Your task to perform on an android device: turn off javascript in the chrome app Image 0: 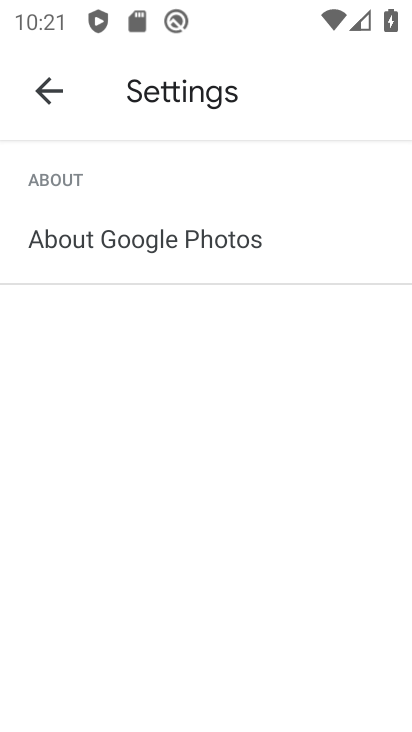
Step 0: press back button
Your task to perform on an android device: turn off javascript in the chrome app Image 1: 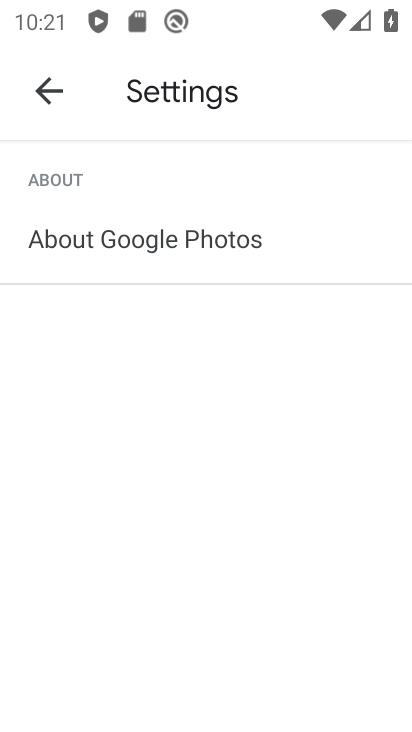
Step 1: press back button
Your task to perform on an android device: turn off javascript in the chrome app Image 2: 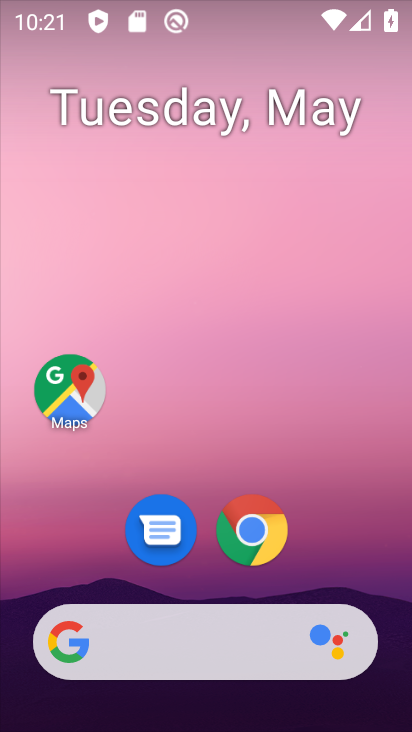
Step 2: drag from (362, 687) to (151, 144)
Your task to perform on an android device: turn off javascript in the chrome app Image 3: 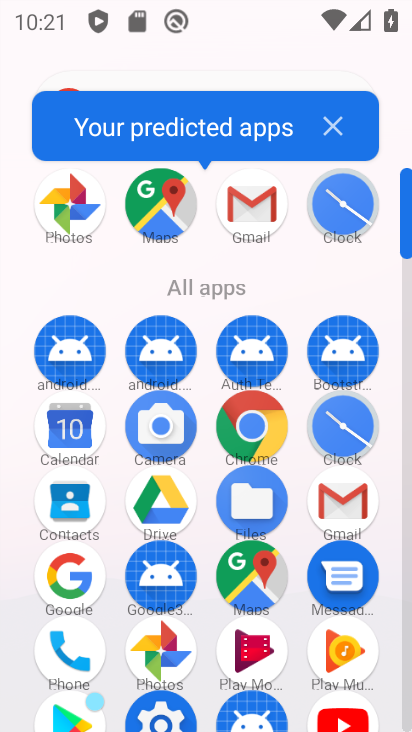
Step 3: click (245, 418)
Your task to perform on an android device: turn off javascript in the chrome app Image 4: 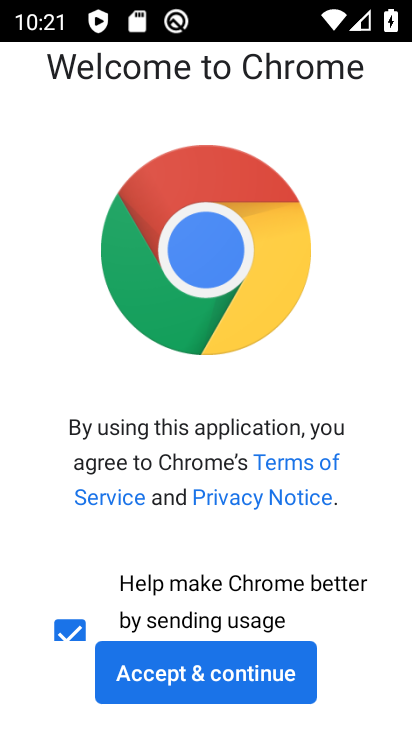
Step 4: click (209, 660)
Your task to perform on an android device: turn off javascript in the chrome app Image 5: 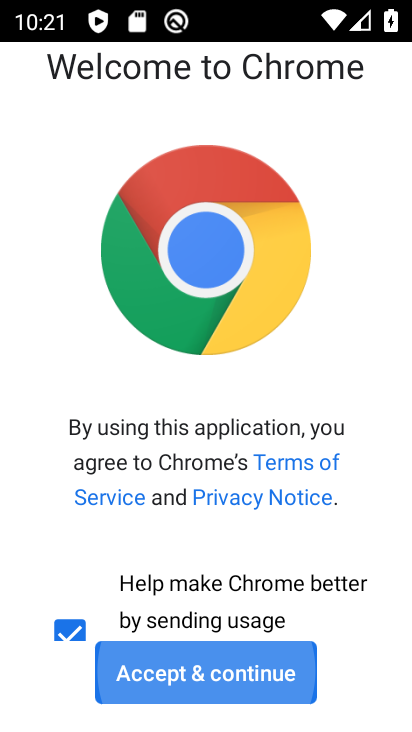
Step 5: click (209, 666)
Your task to perform on an android device: turn off javascript in the chrome app Image 6: 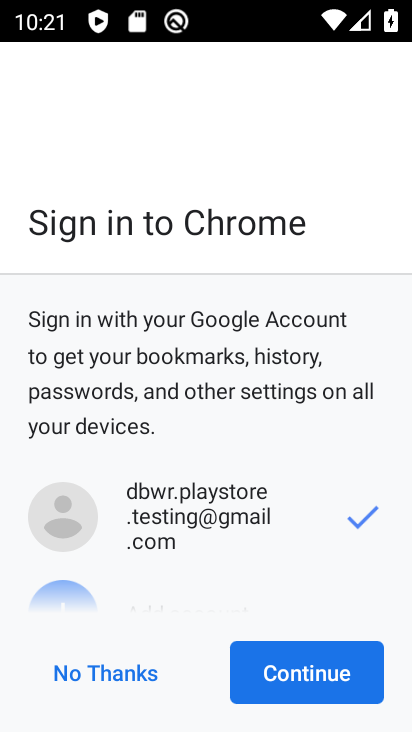
Step 6: click (304, 673)
Your task to perform on an android device: turn off javascript in the chrome app Image 7: 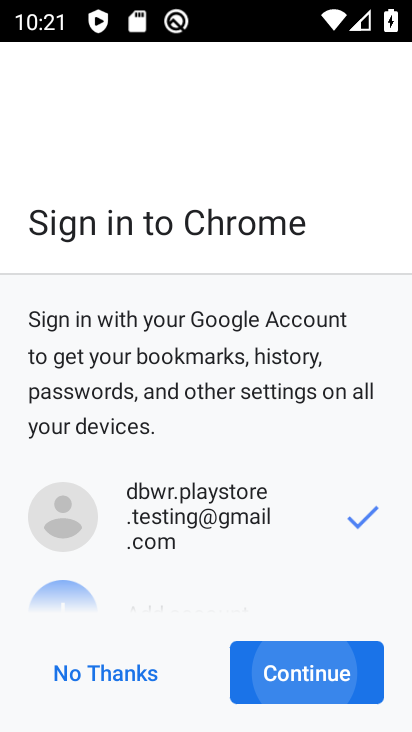
Step 7: click (296, 680)
Your task to perform on an android device: turn off javascript in the chrome app Image 8: 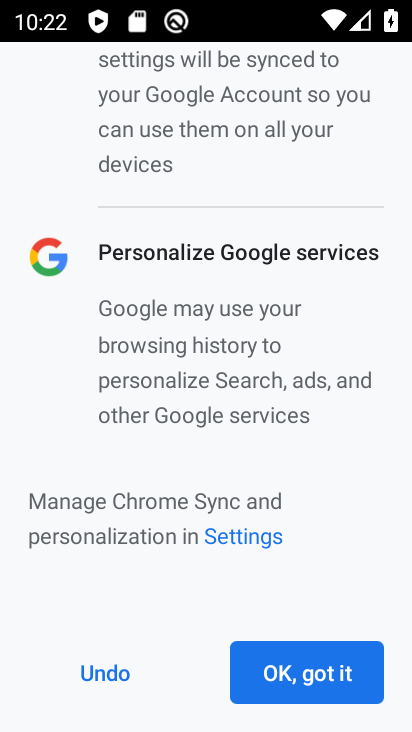
Step 8: click (296, 672)
Your task to perform on an android device: turn off javascript in the chrome app Image 9: 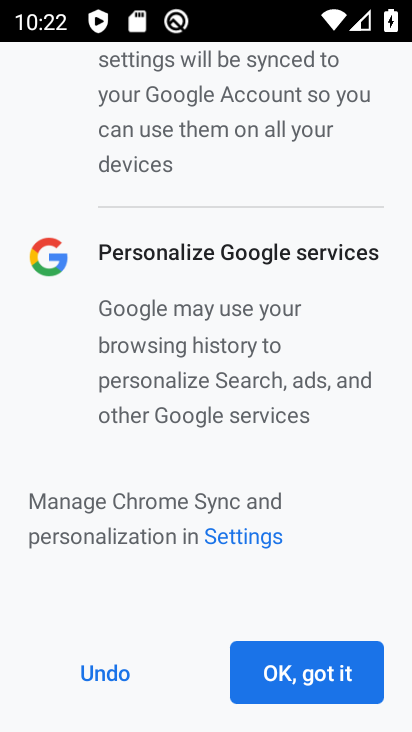
Step 9: click (296, 672)
Your task to perform on an android device: turn off javascript in the chrome app Image 10: 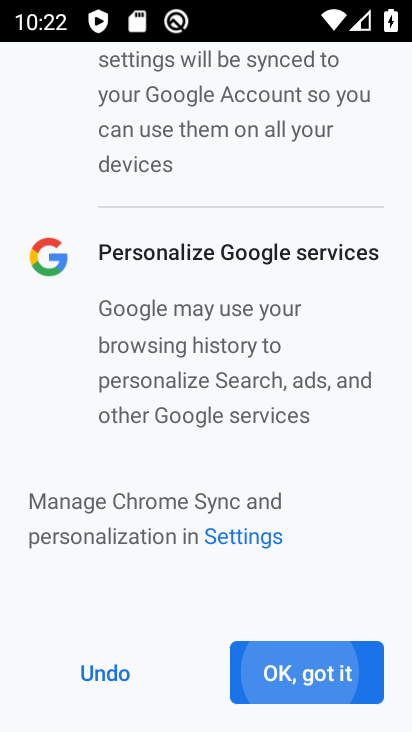
Step 10: click (296, 672)
Your task to perform on an android device: turn off javascript in the chrome app Image 11: 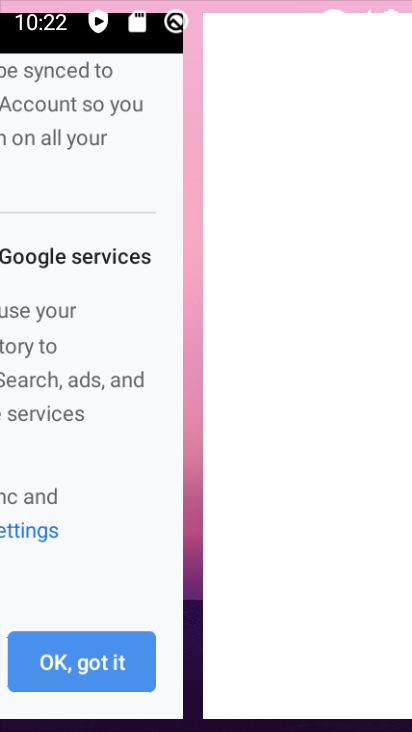
Step 11: click (297, 671)
Your task to perform on an android device: turn off javascript in the chrome app Image 12: 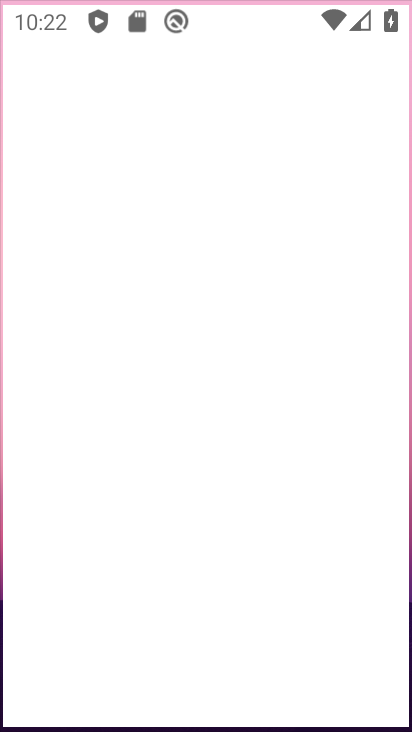
Step 12: click (298, 673)
Your task to perform on an android device: turn off javascript in the chrome app Image 13: 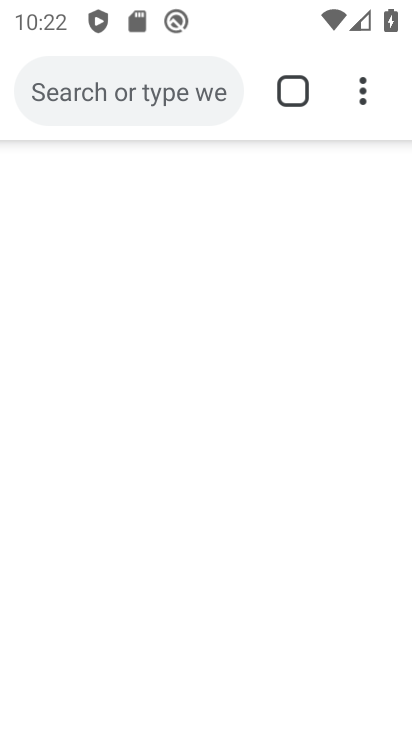
Step 13: click (298, 672)
Your task to perform on an android device: turn off javascript in the chrome app Image 14: 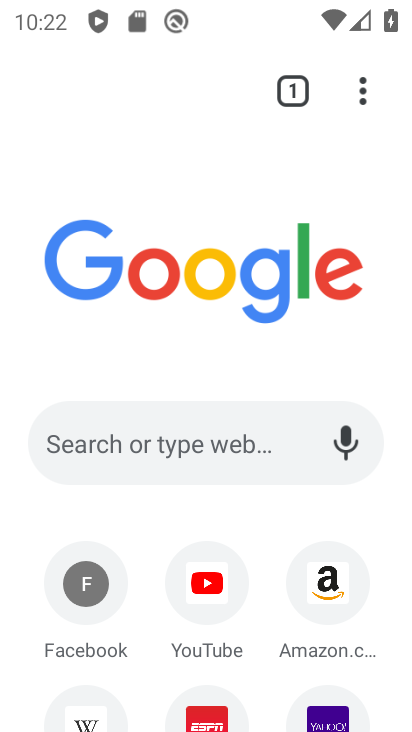
Step 14: click (364, 91)
Your task to perform on an android device: turn off javascript in the chrome app Image 15: 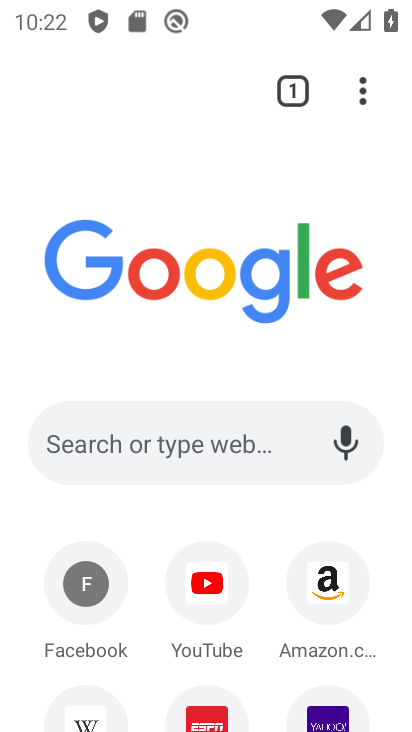
Step 15: click (360, 112)
Your task to perform on an android device: turn off javascript in the chrome app Image 16: 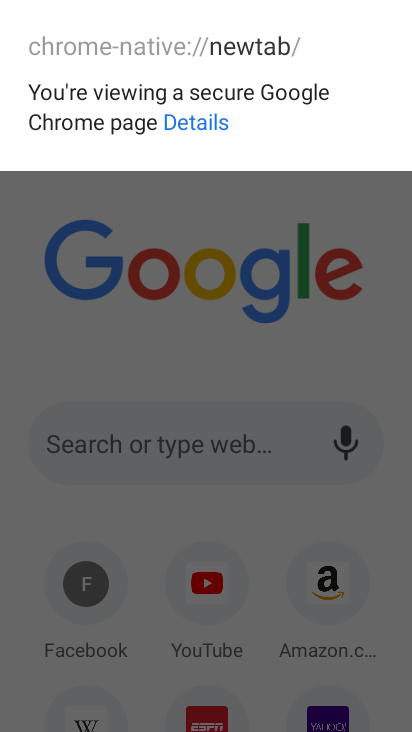
Step 16: drag from (215, 212) to (228, 32)
Your task to perform on an android device: turn off javascript in the chrome app Image 17: 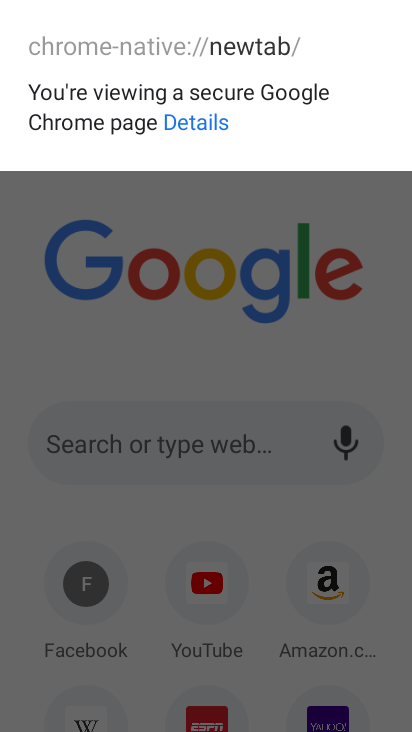
Step 17: drag from (256, 238) to (230, 65)
Your task to perform on an android device: turn off javascript in the chrome app Image 18: 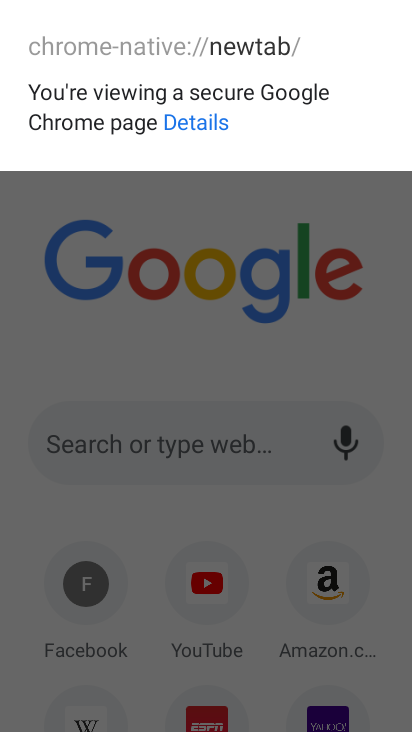
Step 18: drag from (268, 248) to (267, 8)
Your task to perform on an android device: turn off javascript in the chrome app Image 19: 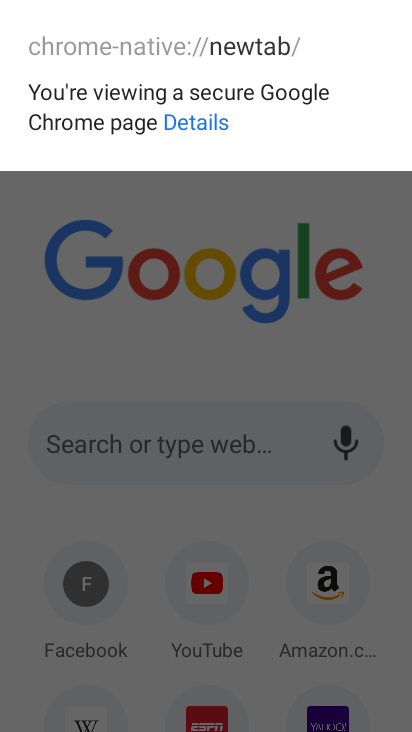
Step 19: drag from (309, 261) to (343, 2)
Your task to perform on an android device: turn off javascript in the chrome app Image 20: 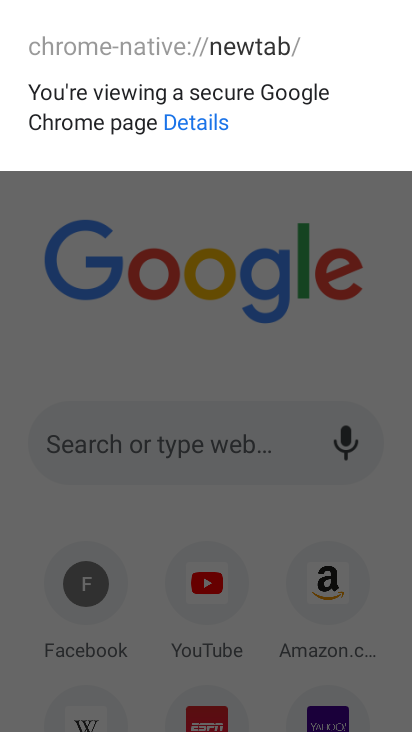
Step 20: drag from (370, 245) to (366, 45)
Your task to perform on an android device: turn off javascript in the chrome app Image 21: 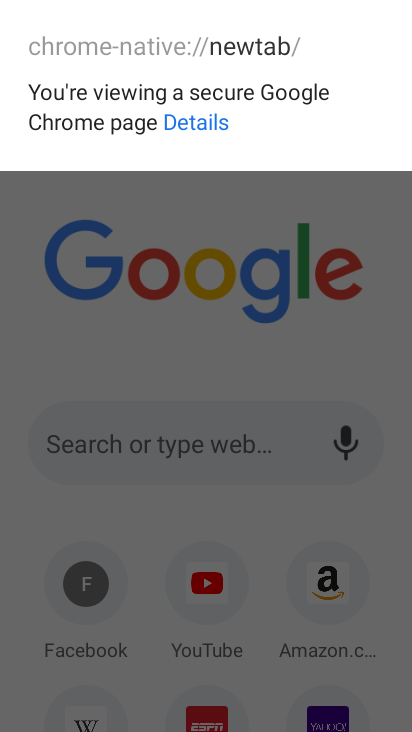
Step 21: drag from (342, 263) to (329, 43)
Your task to perform on an android device: turn off javascript in the chrome app Image 22: 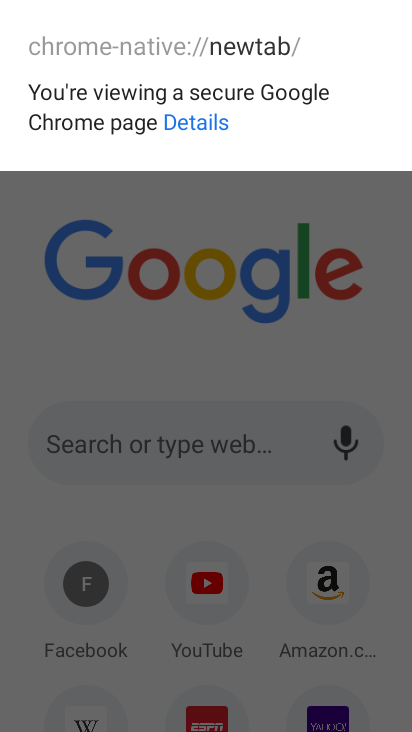
Step 22: drag from (295, 371) to (215, 49)
Your task to perform on an android device: turn off javascript in the chrome app Image 23: 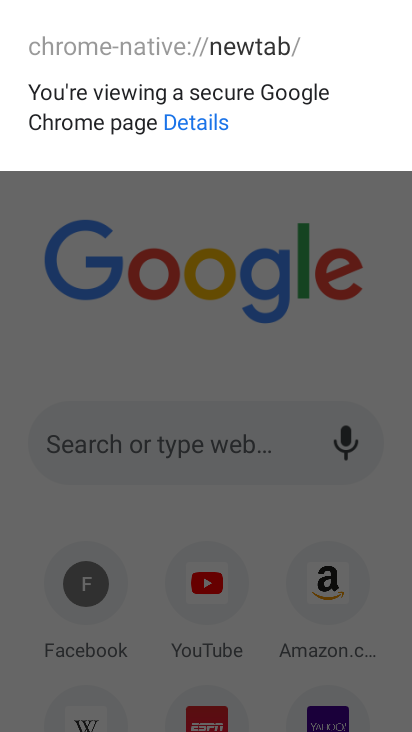
Step 23: drag from (232, 273) to (240, 36)
Your task to perform on an android device: turn off javascript in the chrome app Image 24: 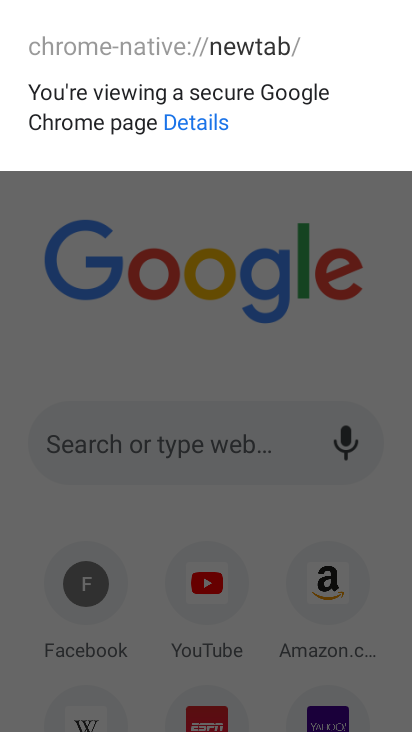
Step 24: click (301, 297)
Your task to perform on an android device: turn off javascript in the chrome app Image 25: 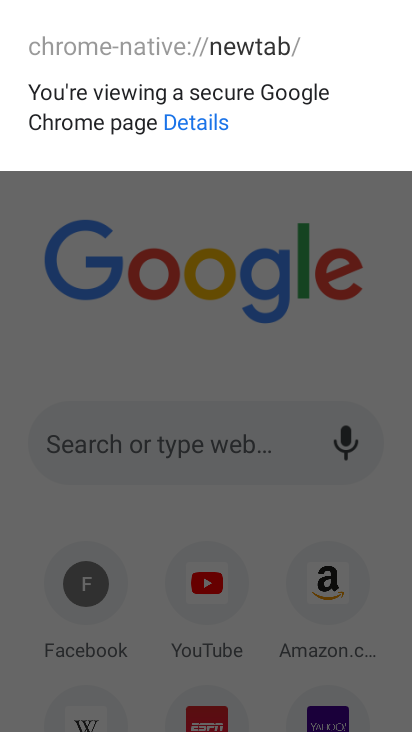
Step 25: click (301, 297)
Your task to perform on an android device: turn off javascript in the chrome app Image 26: 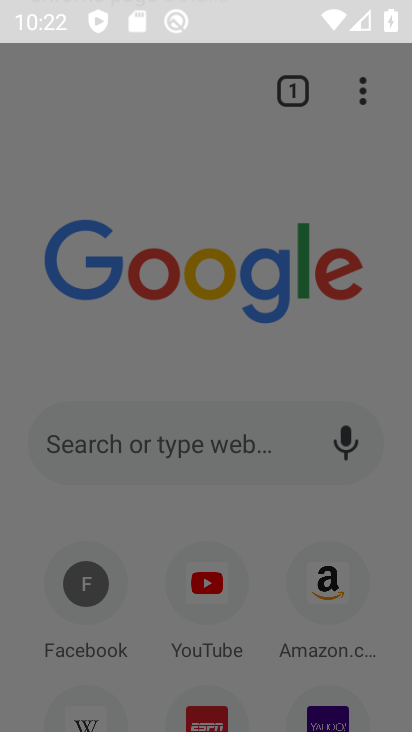
Step 26: click (305, 316)
Your task to perform on an android device: turn off javascript in the chrome app Image 27: 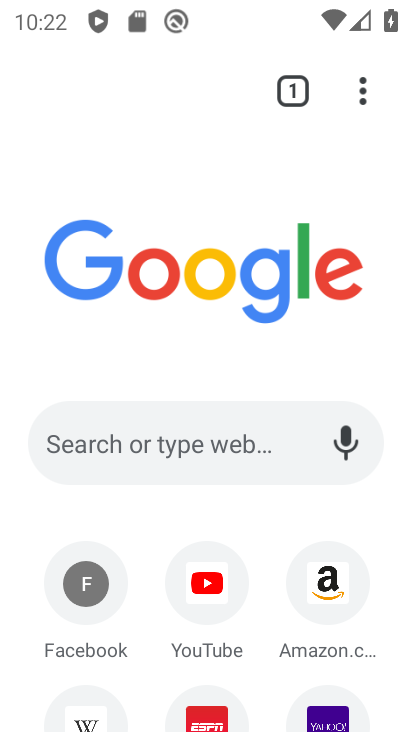
Step 27: click (305, 316)
Your task to perform on an android device: turn off javascript in the chrome app Image 28: 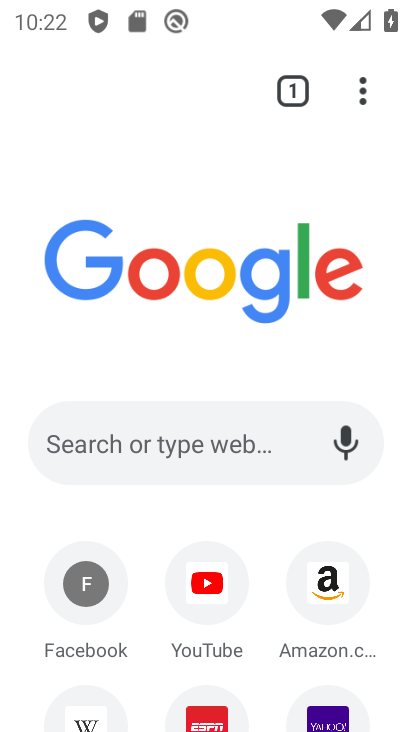
Step 28: click (309, 321)
Your task to perform on an android device: turn off javascript in the chrome app Image 29: 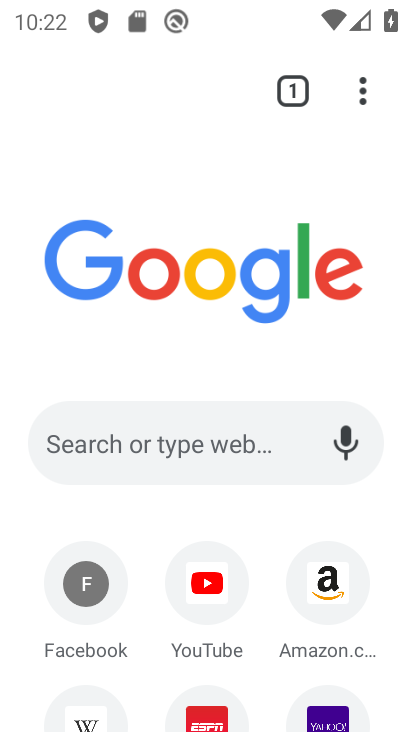
Step 29: click (361, 90)
Your task to perform on an android device: turn off javascript in the chrome app Image 30: 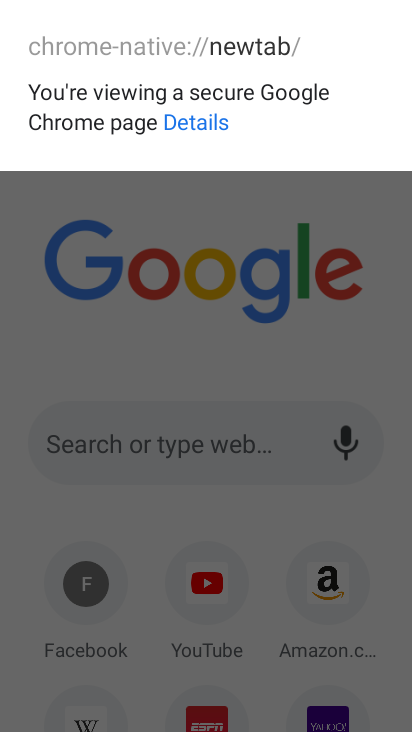
Step 30: click (384, 242)
Your task to perform on an android device: turn off javascript in the chrome app Image 31: 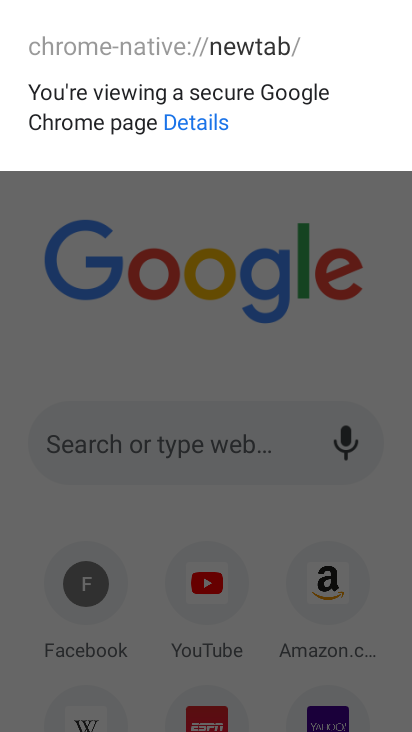
Step 31: click (364, 244)
Your task to perform on an android device: turn off javascript in the chrome app Image 32: 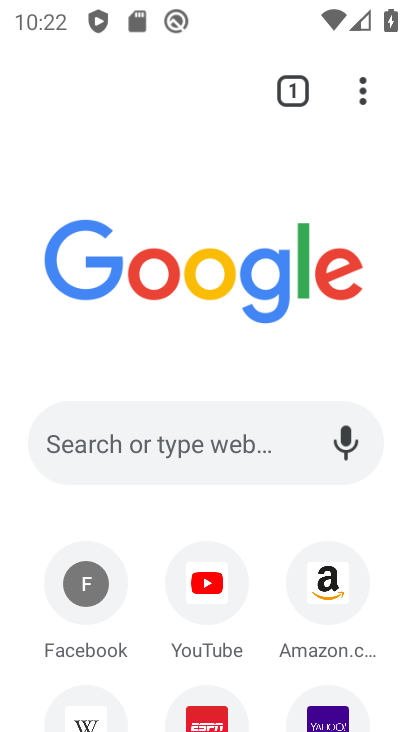
Step 32: click (357, 249)
Your task to perform on an android device: turn off javascript in the chrome app Image 33: 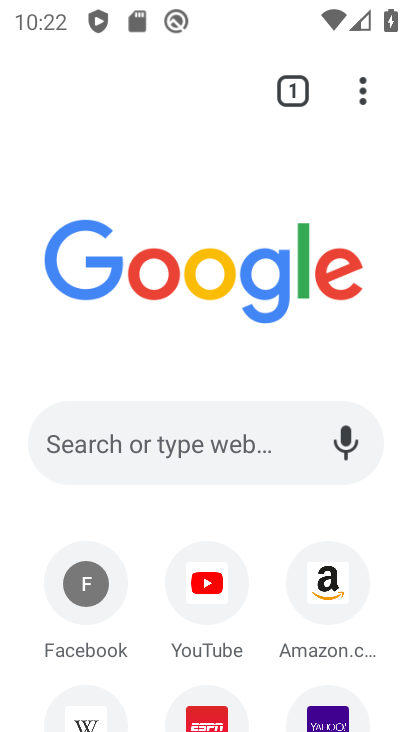
Step 33: drag from (361, 95) to (84, 557)
Your task to perform on an android device: turn off javascript in the chrome app Image 34: 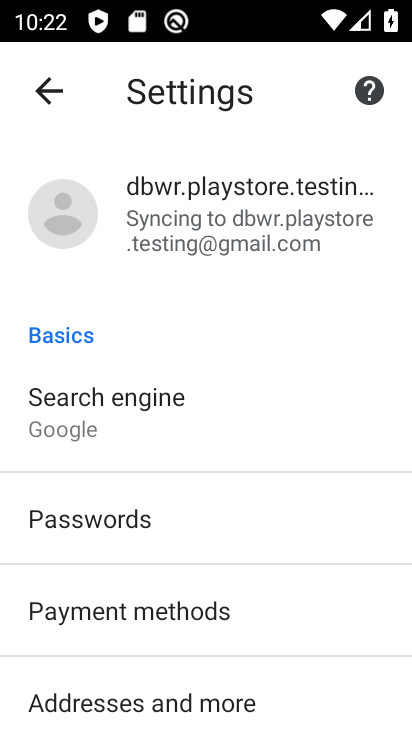
Step 34: drag from (177, 595) to (160, 240)
Your task to perform on an android device: turn off javascript in the chrome app Image 35: 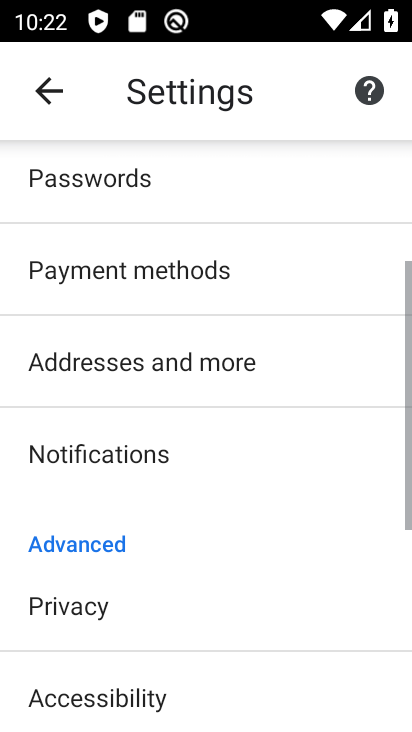
Step 35: drag from (180, 478) to (167, 135)
Your task to perform on an android device: turn off javascript in the chrome app Image 36: 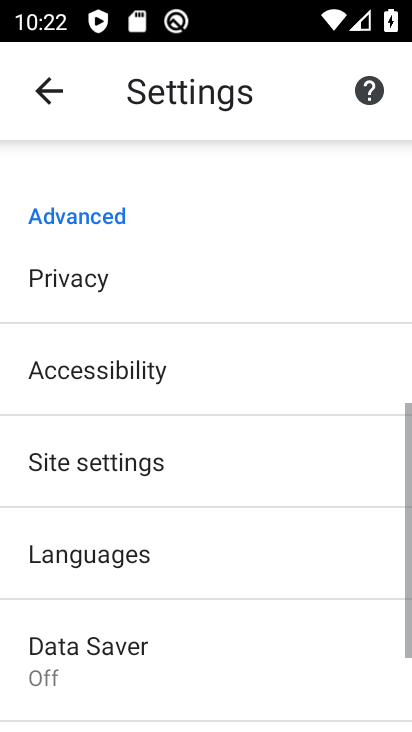
Step 36: drag from (185, 398) to (168, 114)
Your task to perform on an android device: turn off javascript in the chrome app Image 37: 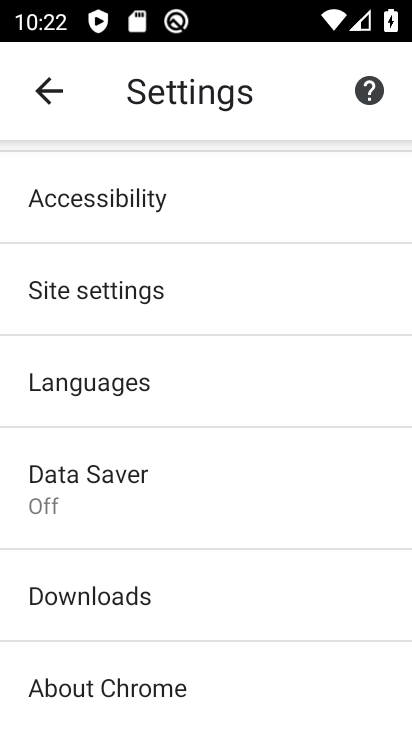
Step 37: click (68, 285)
Your task to perform on an android device: turn off javascript in the chrome app Image 38: 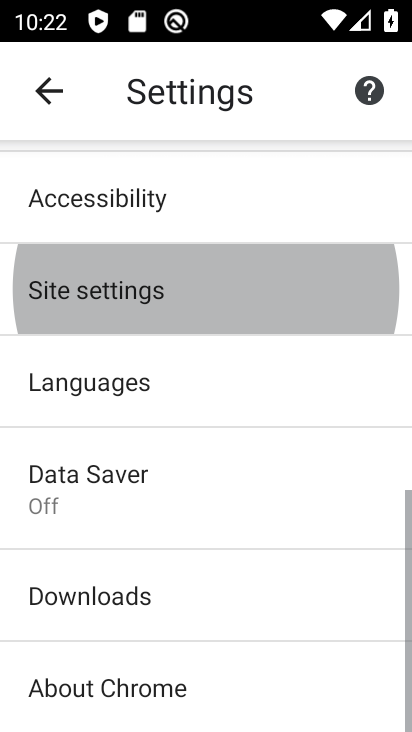
Step 38: click (77, 292)
Your task to perform on an android device: turn off javascript in the chrome app Image 39: 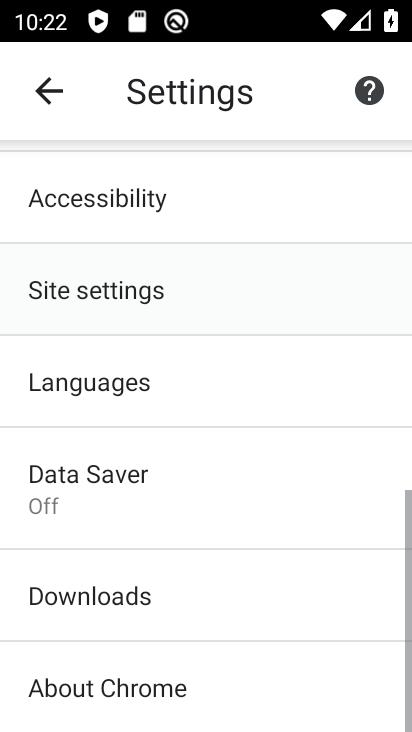
Step 39: click (77, 292)
Your task to perform on an android device: turn off javascript in the chrome app Image 40: 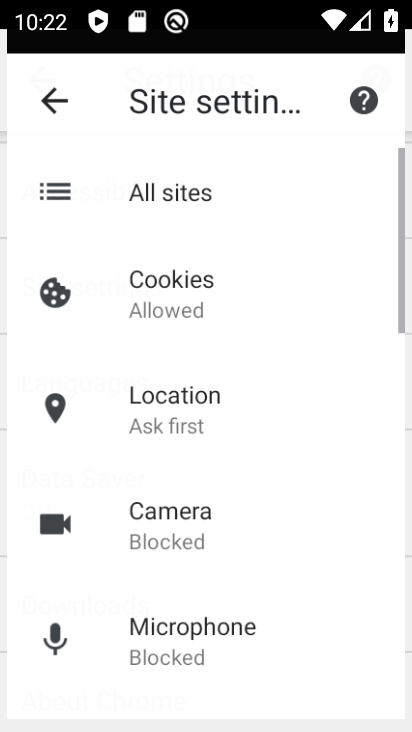
Step 40: click (77, 292)
Your task to perform on an android device: turn off javascript in the chrome app Image 41: 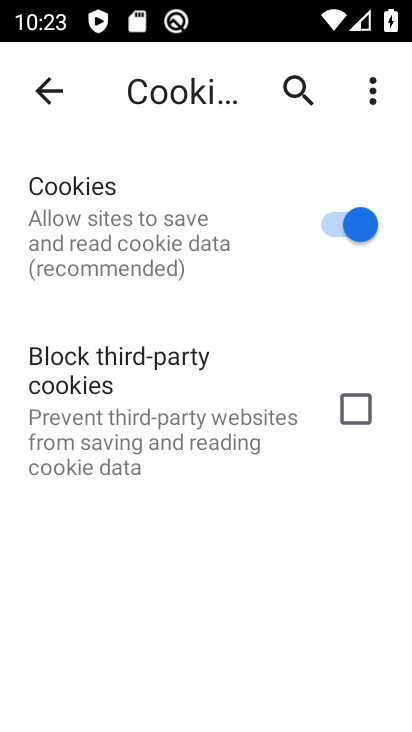
Step 41: click (50, 96)
Your task to perform on an android device: turn off javascript in the chrome app Image 42: 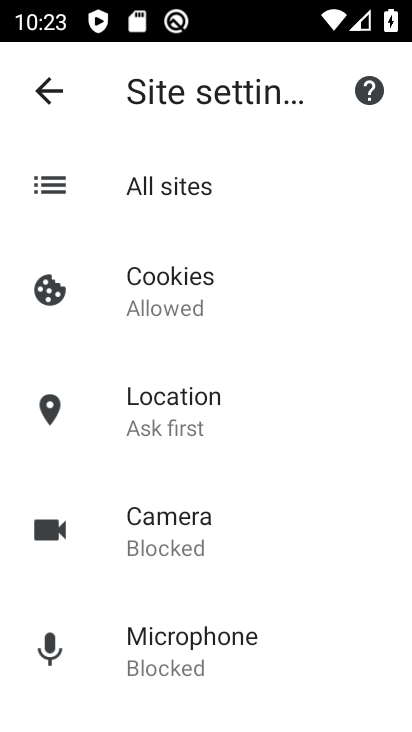
Step 42: drag from (172, 623) to (145, 290)
Your task to perform on an android device: turn off javascript in the chrome app Image 43: 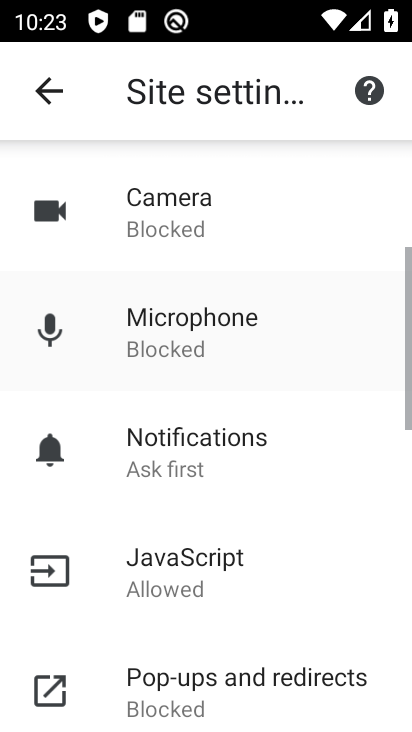
Step 43: drag from (190, 548) to (195, 189)
Your task to perform on an android device: turn off javascript in the chrome app Image 44: 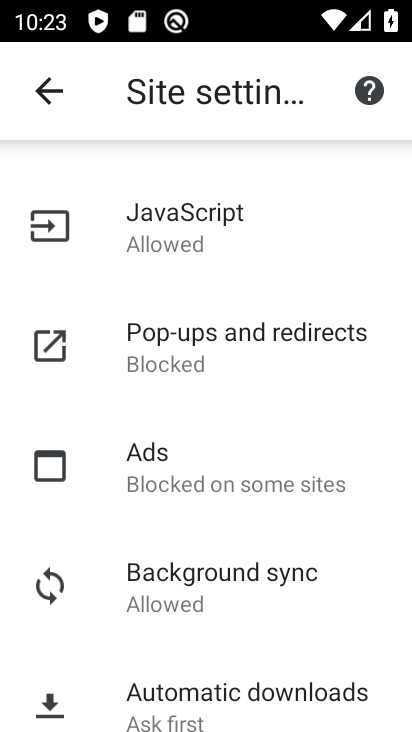
Step 44: click (187, 227)
Your task to perform on an android device: turn off javascript in the chrome app Image 45: 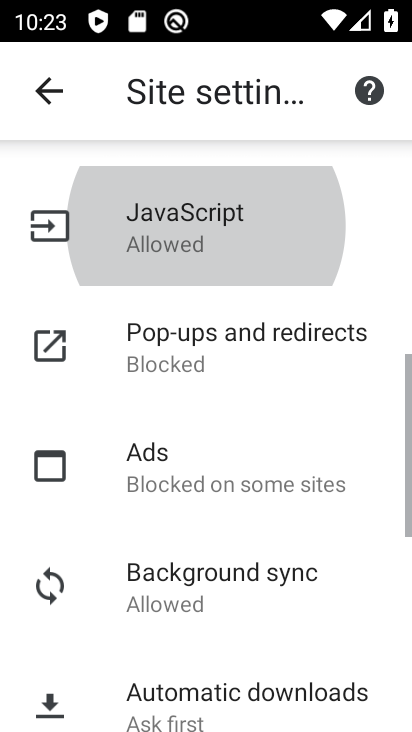
Step 45: click (187, 229)
Your task to perform on an android device: turn off javascript in the chrome app Image 46: 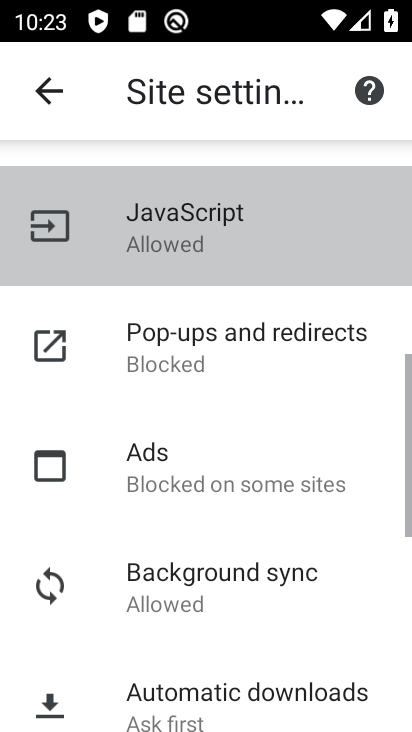
Step 46: click (187, 232)
Your task to perform on an android device: turn off javascript in the chrome app Image 47: 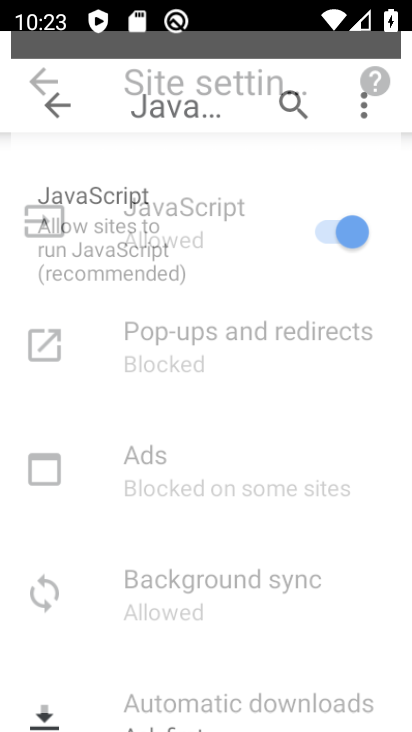
Step 47: click (186, 233)
Your task to perform on an android device: turn off javascript in the chrome app Image 48: 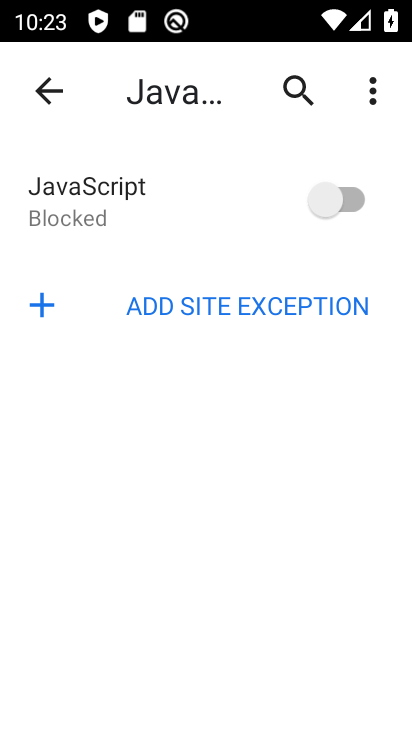
Step 48: click (328, 201)
Your task to perform on an android device: turn off javascript in the chrome app Image 49: 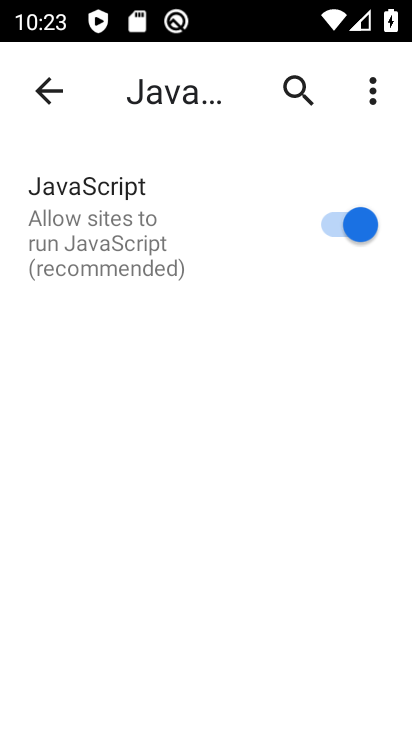
Step 49: task complete